Your task to perform on an android device: uninstall "Calculator" Image 0: 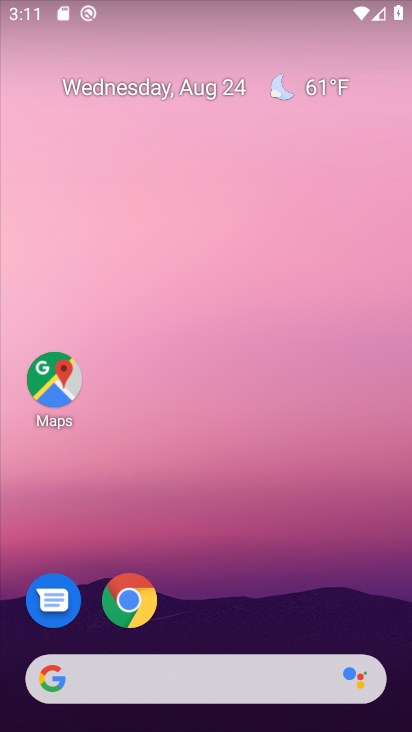
Step 0: drag from (225, 558) to (328, 4)
Your task to perform on an android device: uninstall "Calculator" Image 1: 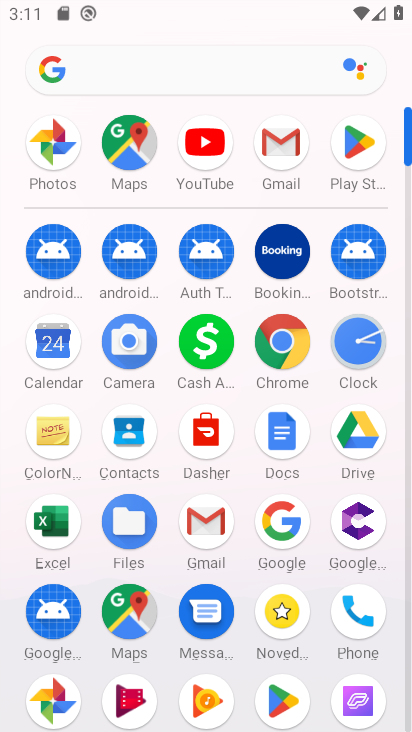
Step 1: click (363, 146)
Your task to perform on an android device: uninstall "Calculator" Image 2: 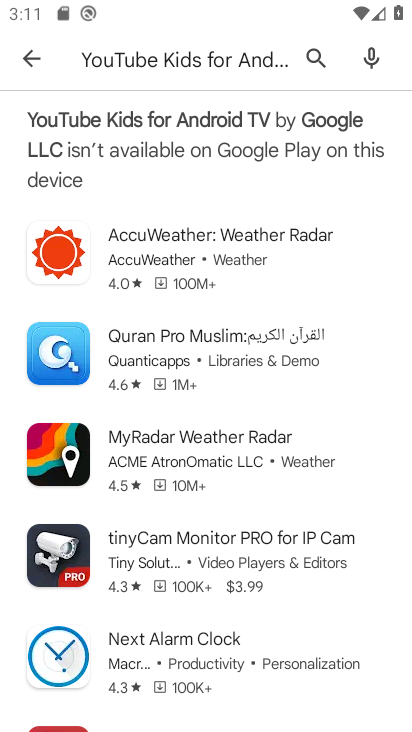
Step 2: click (318, 36)
Your task to perform on an android device: uninstall "Calculator" Image 3: 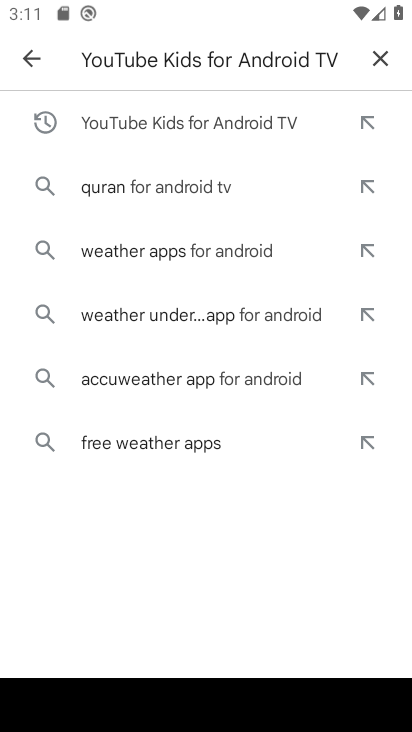
Step 3: click (382, 50)
Your task to perform on an android device: uninstall "Calculator" Image 4: 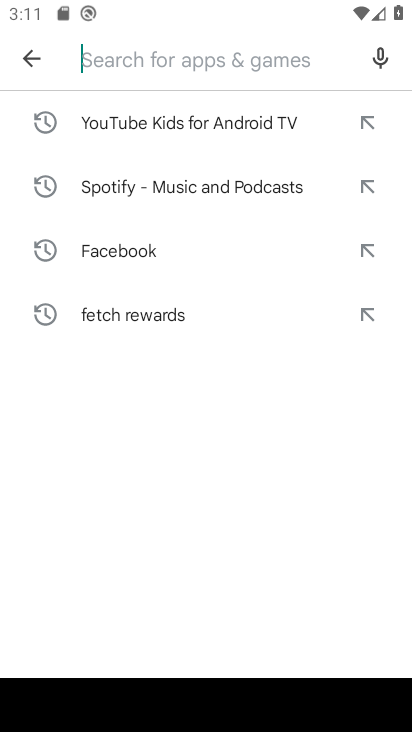
Step 4: press back button
Your task to perform on an android device: uninstall "Calculator" Image 5: 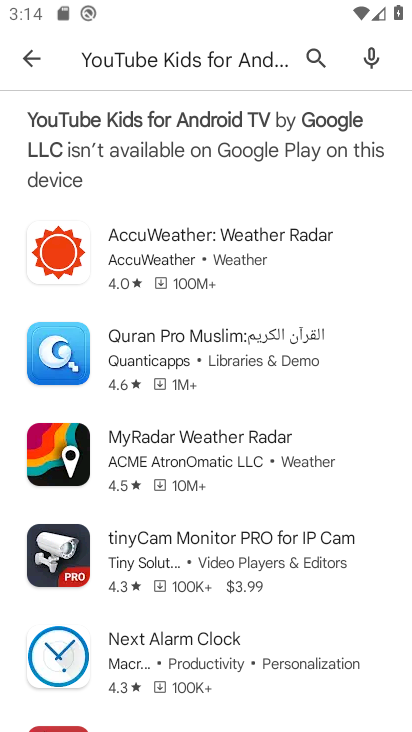
Step 5: click (315, 59)
Your task to perform on an android device: uninstall "Calculator" Image 6: 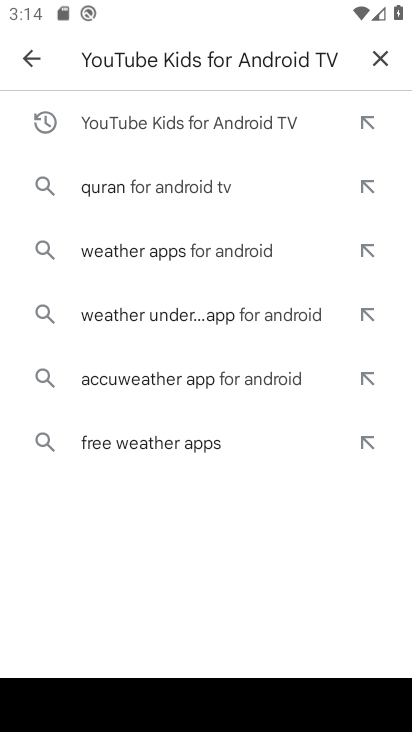
Step 6: click (361, 58)
Your task to perform on an android device: uninstall "Calculator" Image 7: 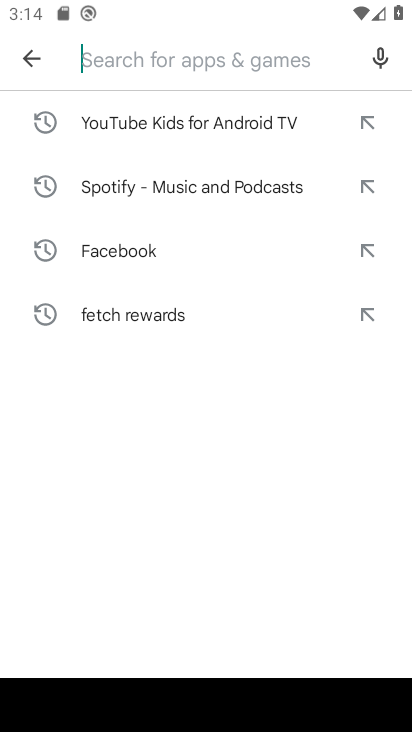
Step 7: click (175, 70)
Your task to perform on an android device: uninstall "Calculator" Image 8: 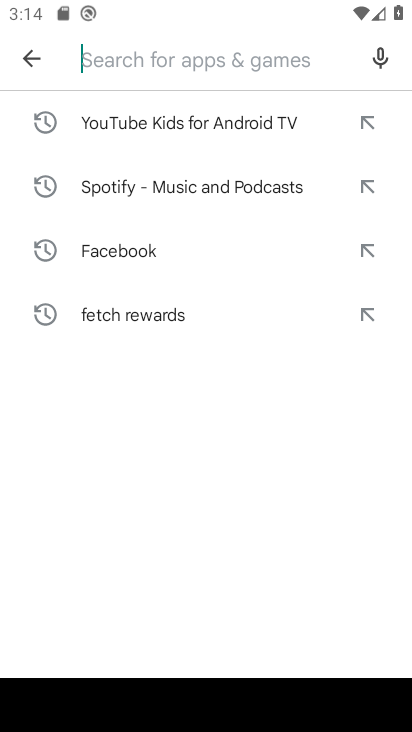
Step 8: type "Calculator"
Your task to perform on an android device: uninstall "Calculator" Image 9: 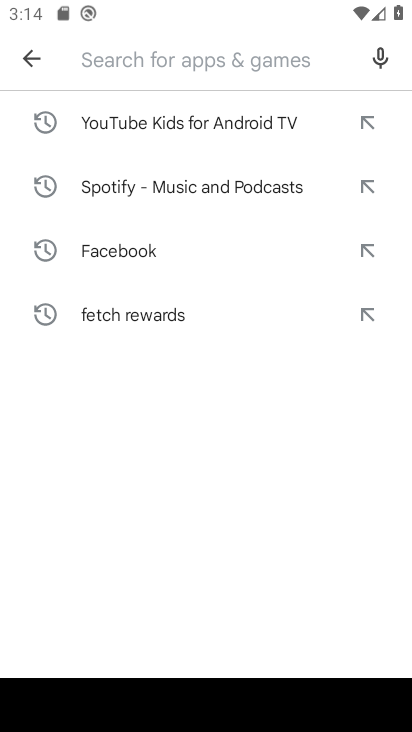
Step 9: click (240, 500)
Your task to perform on an android device: uninstall "Calculator" Image 10: 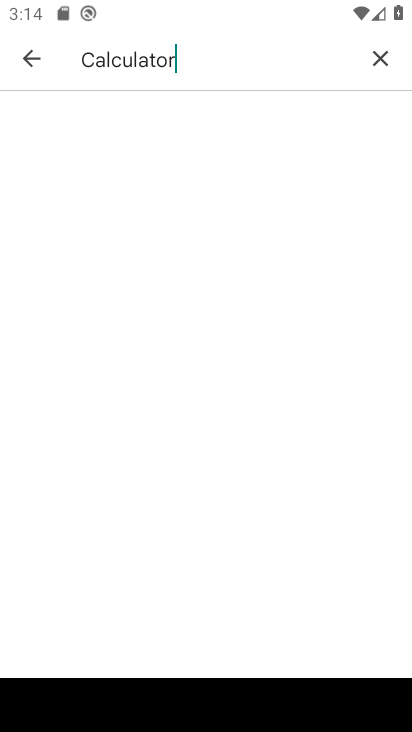
Step 10: task complete